Your task to perform on an android device: toggle show notifications on the lock screen Image 0: 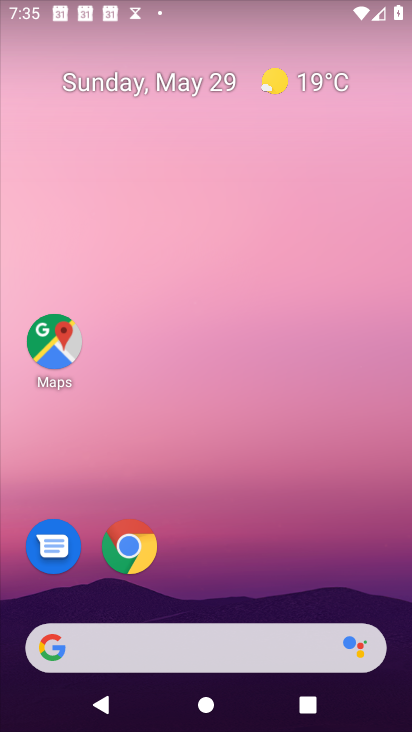
Step 0: drag from (210, 571) to (269, 147)
Your task to perform on an android device: toggle show notifications on the lock screen Image 1: 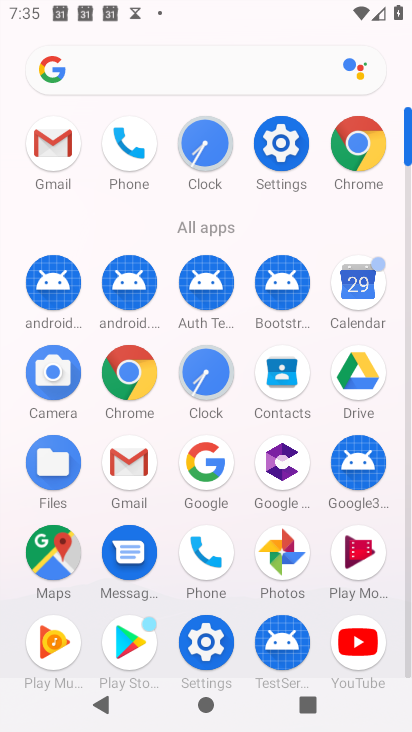
Step 1: click (281, 139)
Your task to perform on an android device: toggle show notifications on the lock screen Image 2: 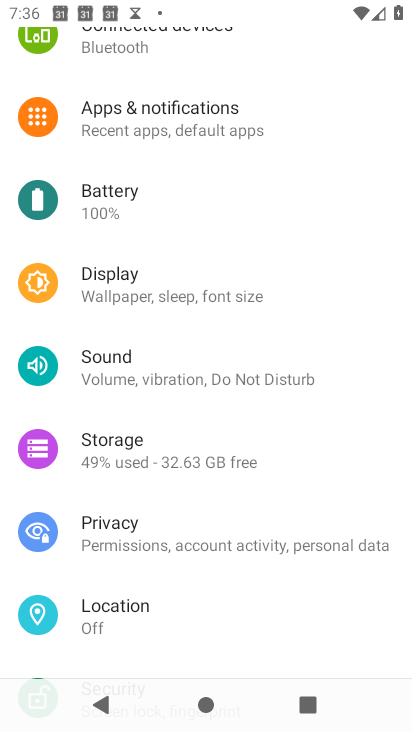
Step 2: click (116, 124)
Your task to perform on an android device: toggle show notifications on the lock screen Image 3: 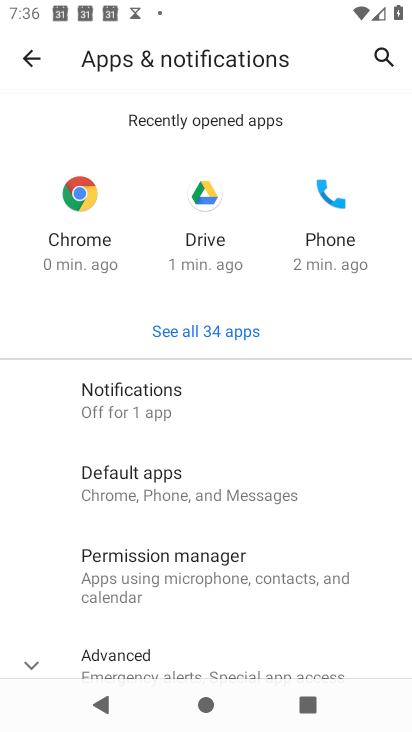
Step 3: click (156, 393)
Your task to perform on an android device: toggle show notifications on the lock screen Image 4: 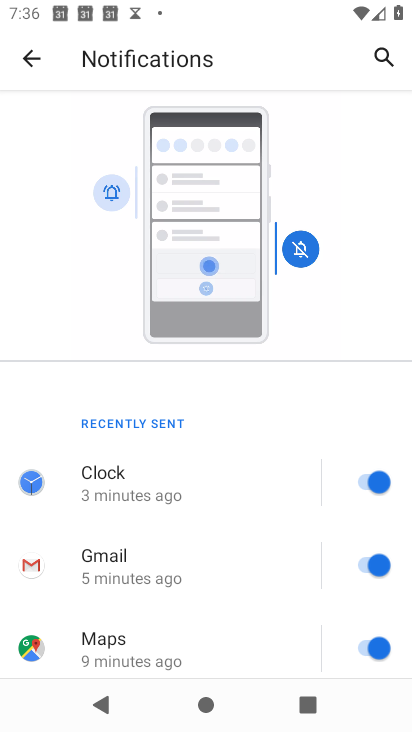
Step 4: drag from (177, 627) to (235, 260)
Your task to perform on an android device: toggle show notifications on the lock screen Image 5: 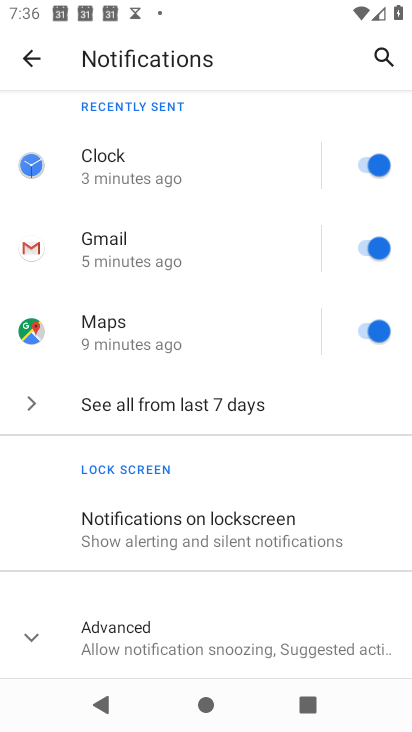
Step 5: click (218, 530)
Your task to perform on an android device: toggle show notifications on the lock screen Image 6: 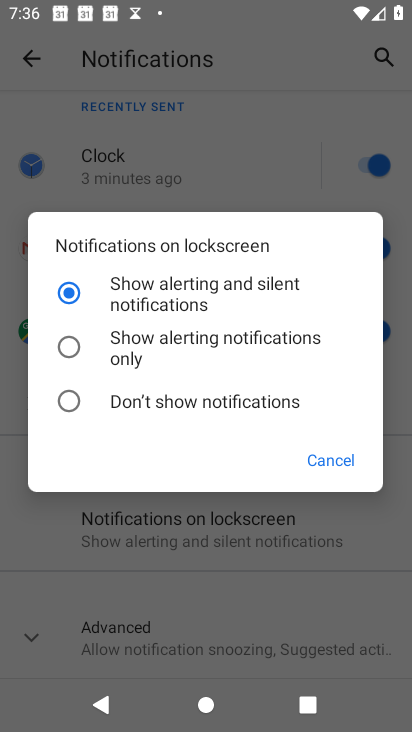
Step 6: click (71, 412)
Your task to perform on an android device: toggle show notifications on the lock screen Image 7: 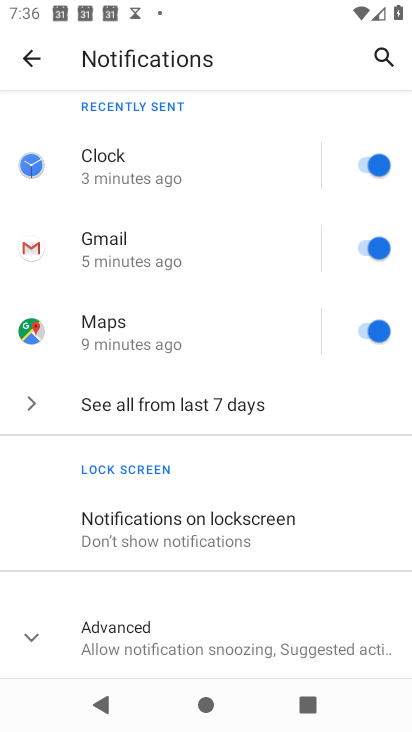
Step 7: task complete